Your task to perform on an android device: What's the weather going to be tomorrow? Image 0: 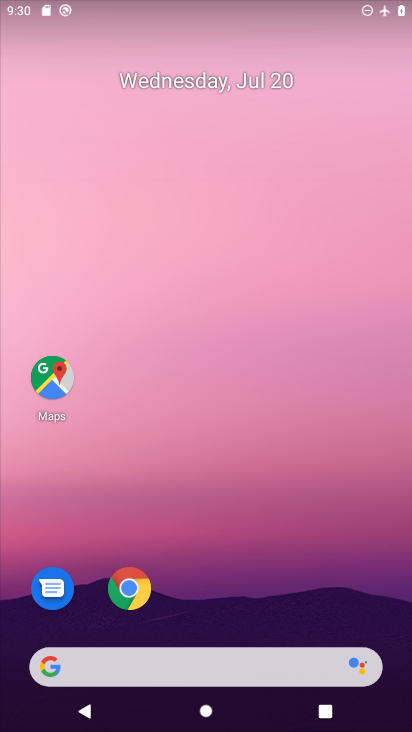
Step 0: click (210, 665)
Your task to perform on an android device: What's the weather going to be tomorrow? Image 1: 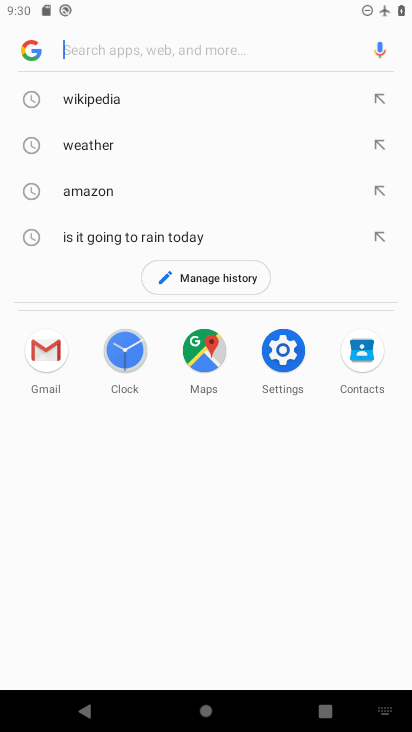
Step 1: click (97, 159)
Your task to perform on an android device: What's the weather going to be tomorrow? Image 2: 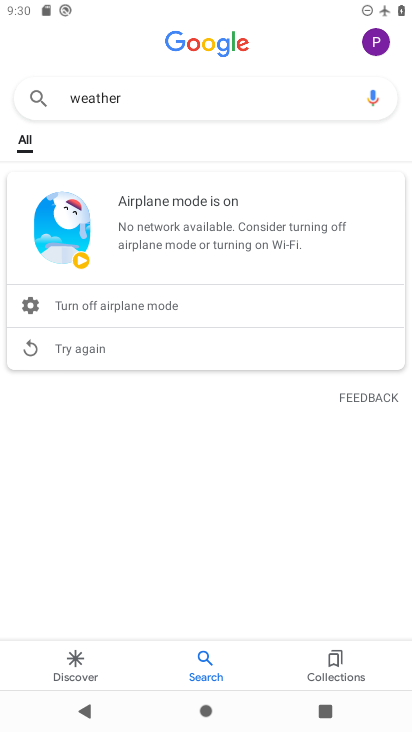
Step 2: drag from (129, 6) to (182, 602)
Your task to perform on an android device: What's the weather going to be tomorrow? Image 3: 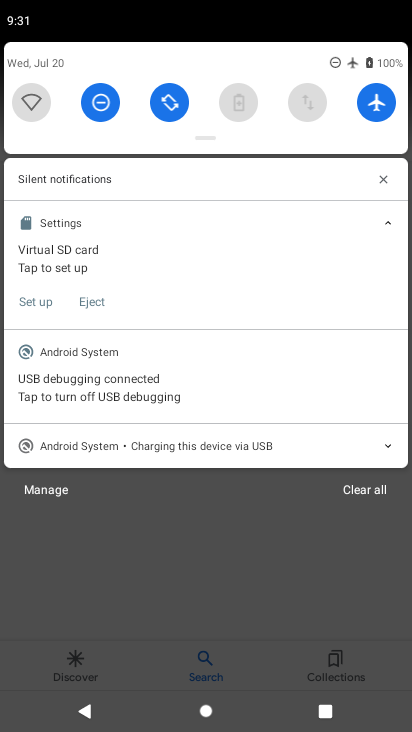
Step 3: click (386, 98)
Your task to perform on an android device: What's the weather going to be tomorrow? Image 4: 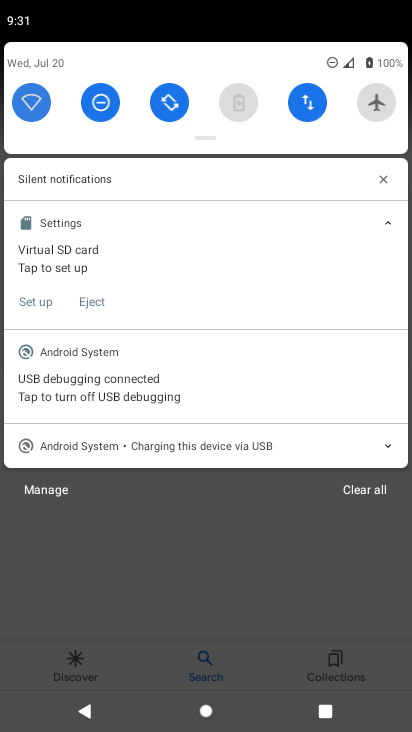
Step 4: task complete